Your task to perform on an android device: toggle sleep mode Image 0: 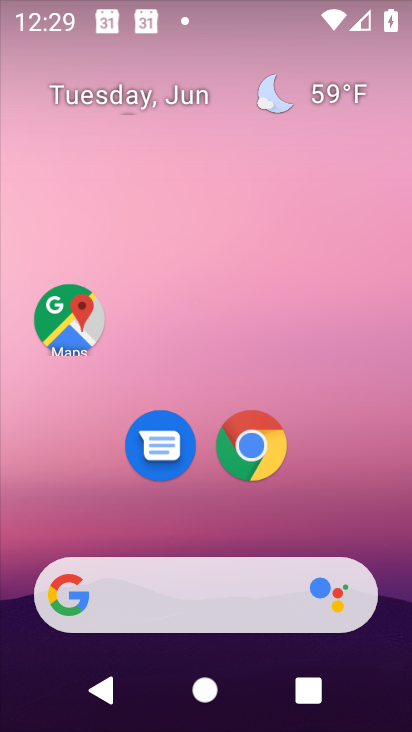
Step 0: drag from (200, 510) to (258, 114)
Your task to perform on an android device: toggle sleep mode Image 1: 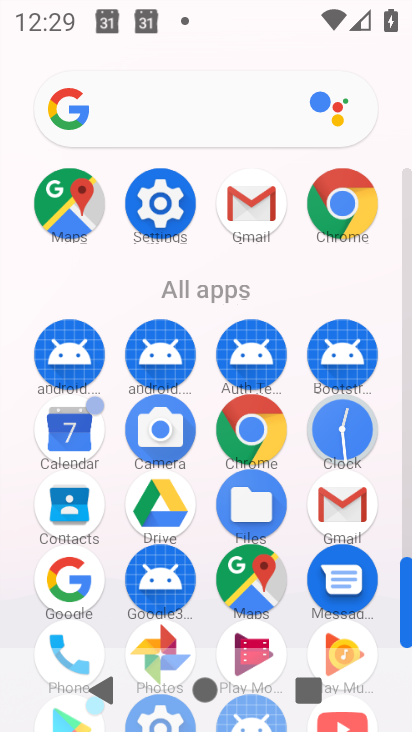
Step 1: click (178, 231)
Your task to perform on an android device: toggle sleep mode Image 2: 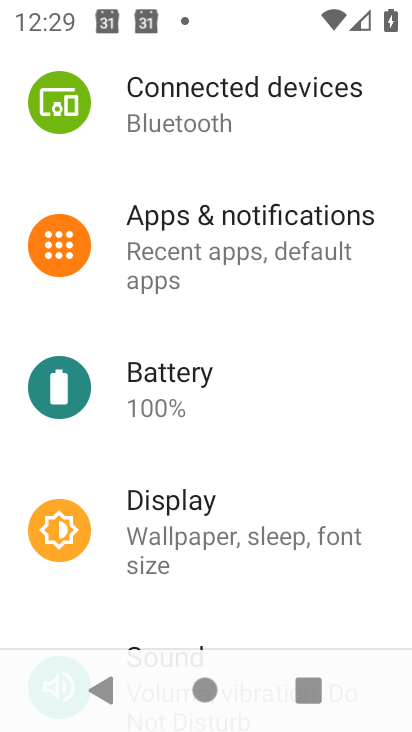
Step 2: task complete